Your task to perform on an android device: turn on wifi Image 0: 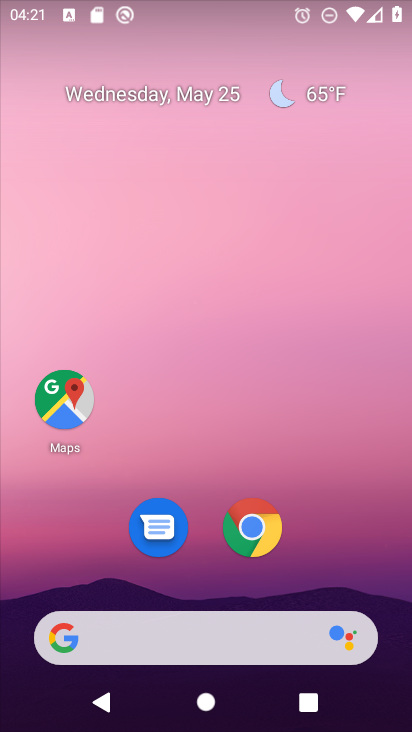
Step 0: drag from (203, 588) to (292, 56)
Your task to perform on an android device: turn on wifi Image 1: 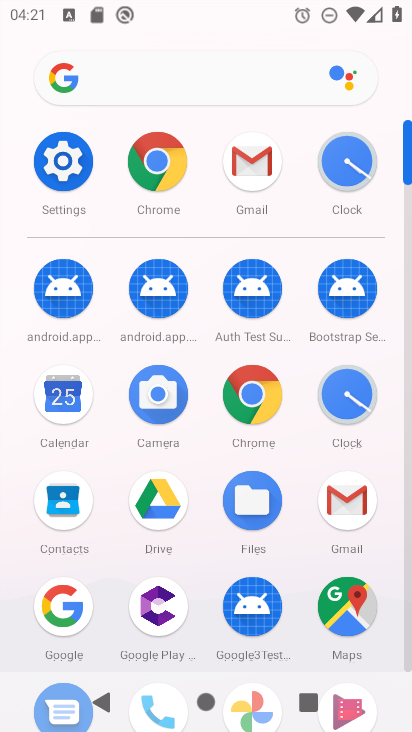
Step 1: click (64, 185)
Your task to perform on an android device: turn on wifi Image 2: 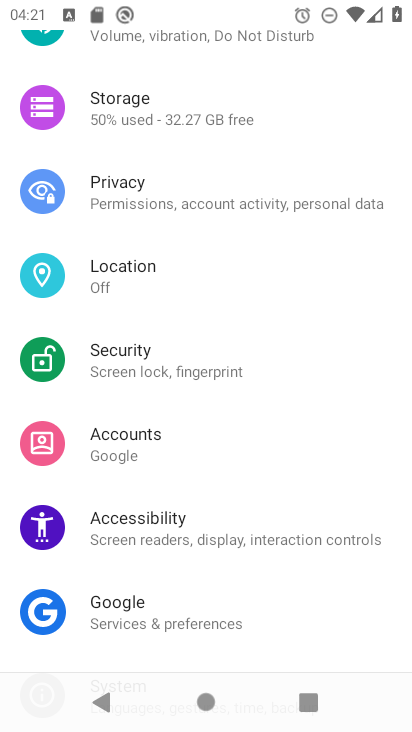
Step 2: drag from (181, 192) to (232, 652)
Your task to perform on an android device: turn on wifi Image 3: 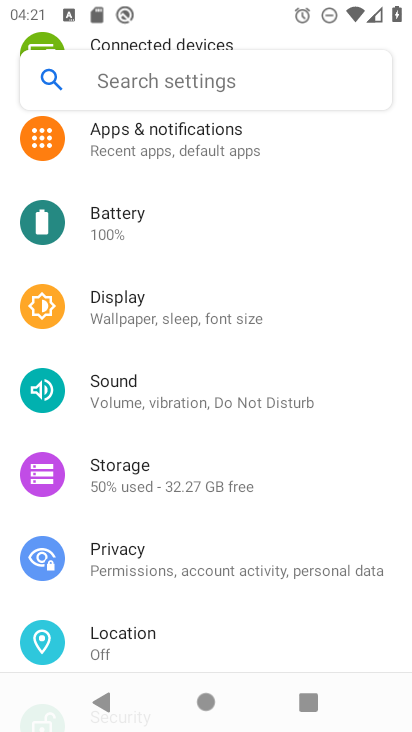
Step 3: drag from (183, 321) to (252, 678)
Your task to perform on an android device: turn on wifi Image 4: 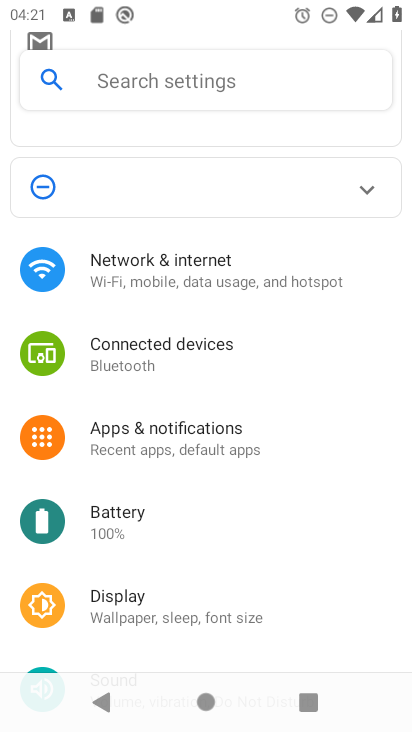
Step 4: click (200, 272)
Your task to perform on an android device: turn on wifi Image 5: 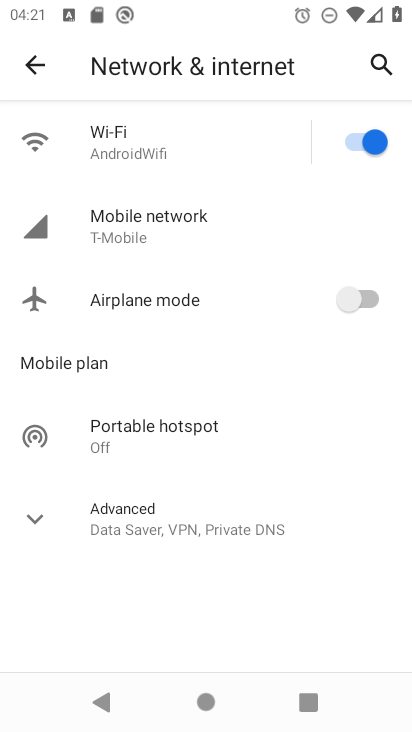
Step 5: task complete